Your task to perform on an android device: Open location settings Image 0: 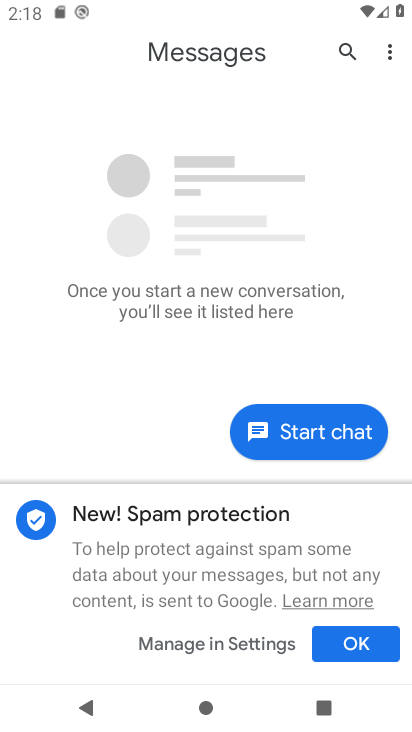
Step 0: press back button
Your task to perform on an android device: Open location settings Image 1: 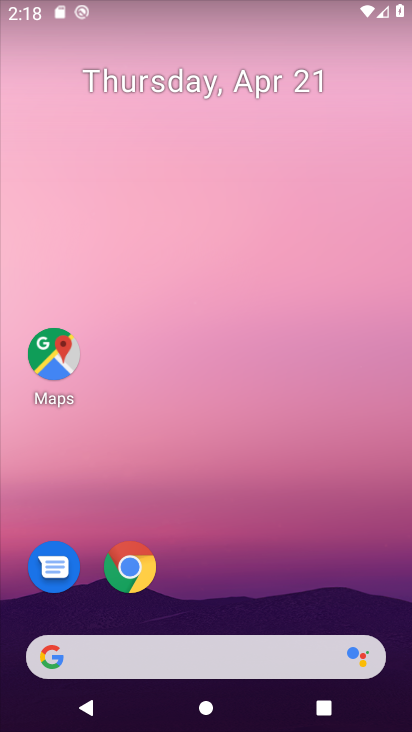
Step 1: drag from (297, 562) to (264, 27)
Your task to perform on an android device: Open location settings Image 2: 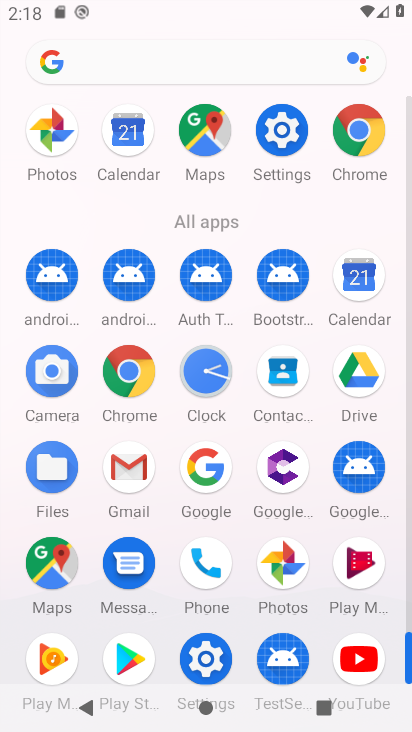
Step 2: click (199, 652)
Your task to perform on an android device: Open location settings Image 3: 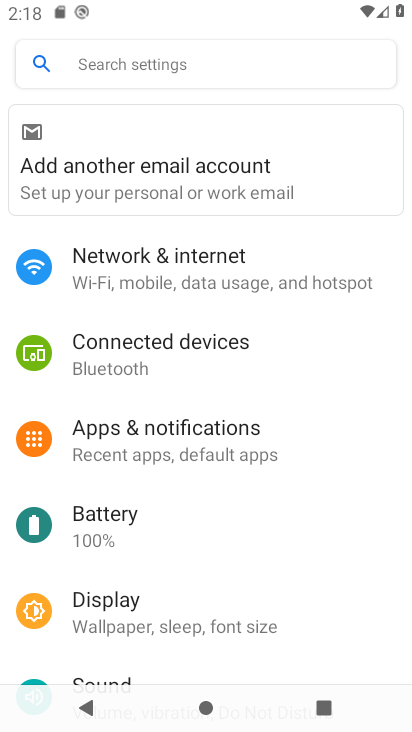
Step 3: drag from (283, 423) to (269, 130)
Your task to perform on an android device: Open location settings Image 4: 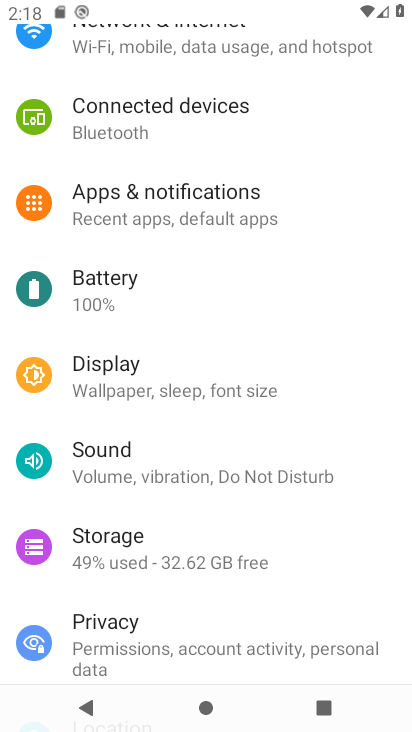
Step 4: drag from (249, 536) to (262, 217)
Your task to perform on an android device: Open location settings Image 5: 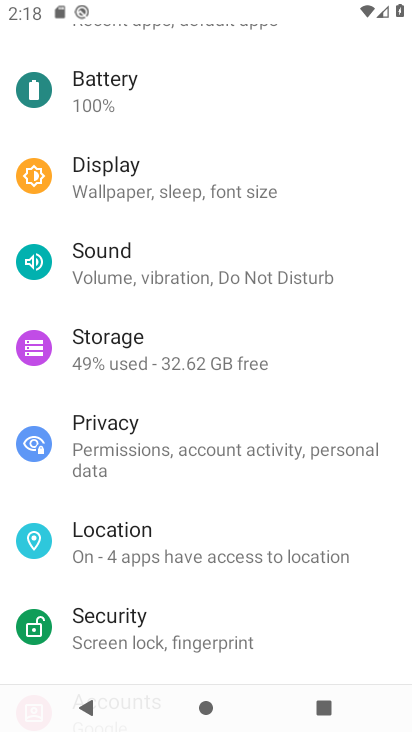
Step 5: click (129, 548)
Your task to perform on an android device: Open location settings Image 6: 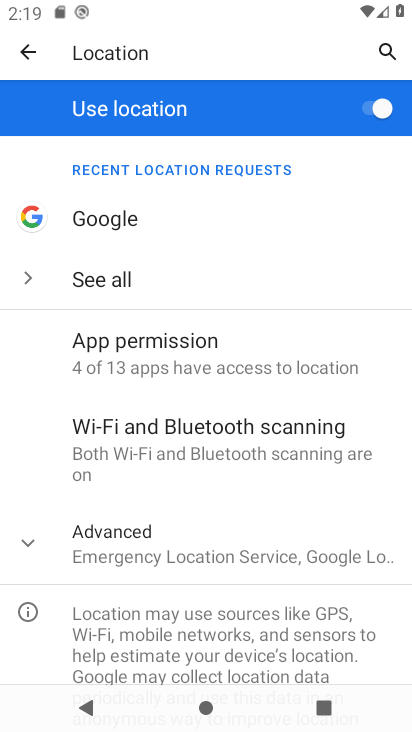
Step 6: drag from (229, 531) to (244, 187)
Your task to perform on an android device: Open location settings Image 7: 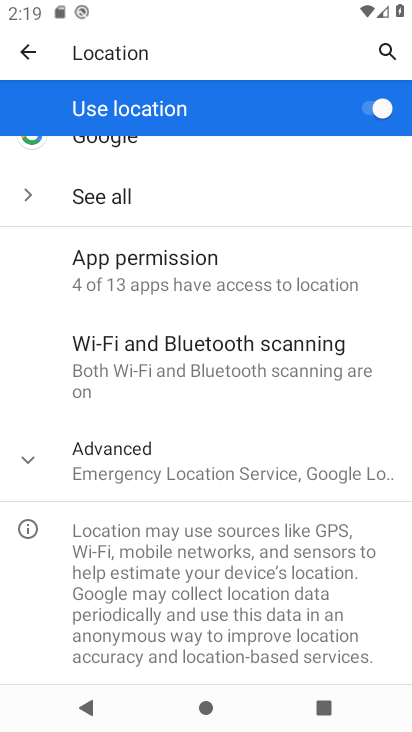
Step 7: click (30, 461)
Your task to perform on an android device: Open location settings Image 8: 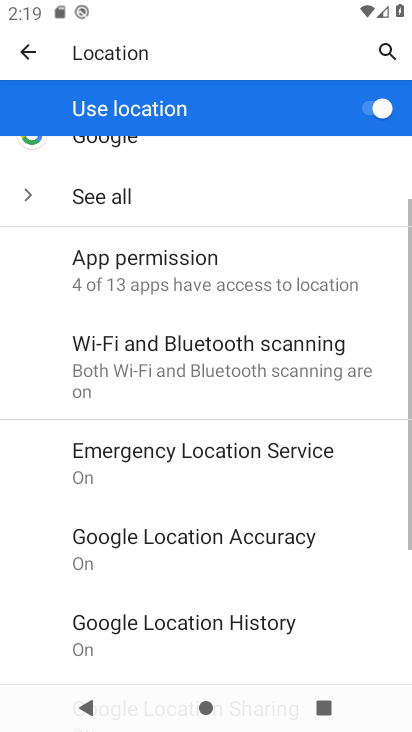
Step 8: task complete